Your task to perform on an android device: toggle sleep mode Image 0: 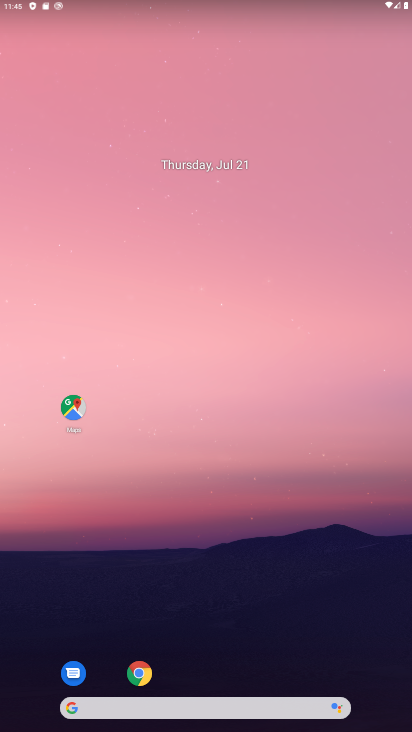
Step 0: drag from (397, 644) to (233, 131)
Your task to perform on an android device: toggle sleep mode Image 1: 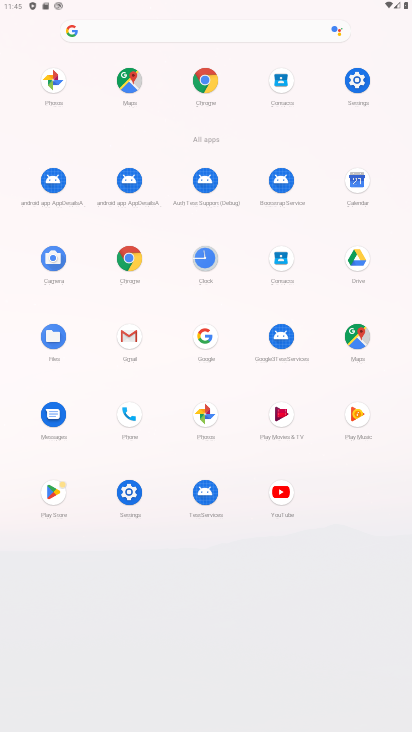
Step 1: click (353, 71)
Your task to perform on an android device: toggle sleep mode Image 2: 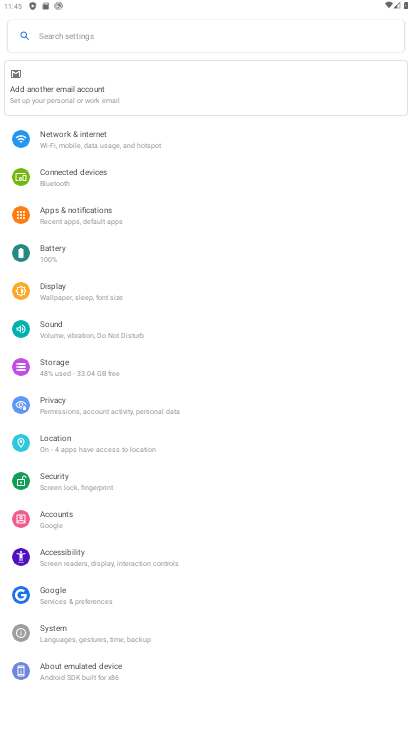
Step 2: click (93, 289)
Your task to perform on an android device: toggle sleep mode Image 3: 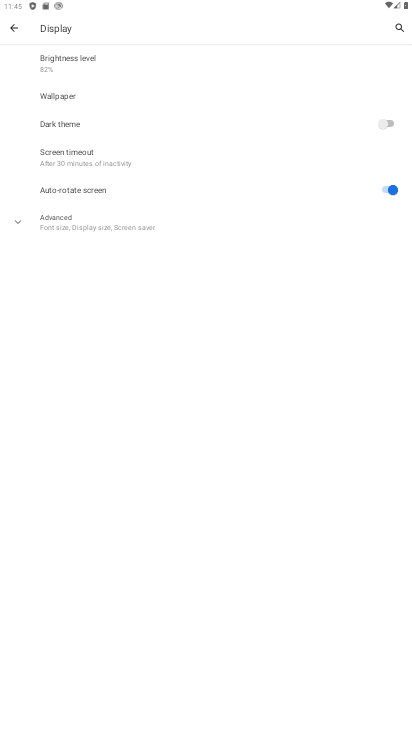
Step 3: click (147, 205)
Your task to perform on an android device: toggle sleep mode Image 4: 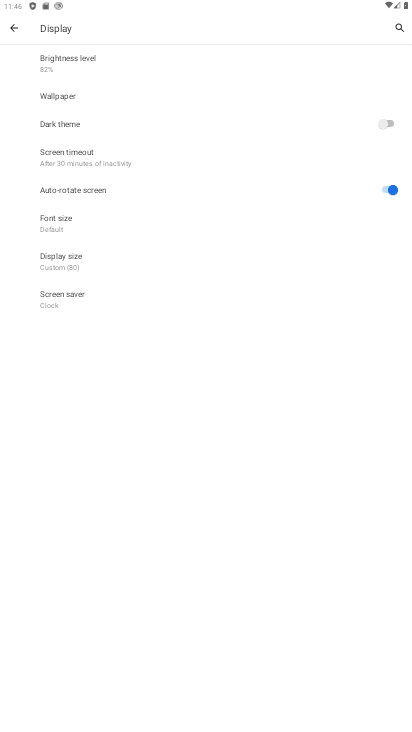
Step 4: task complete